Your task to perform on an android device: open the mobile data screen to see how much data has been used Image 0: 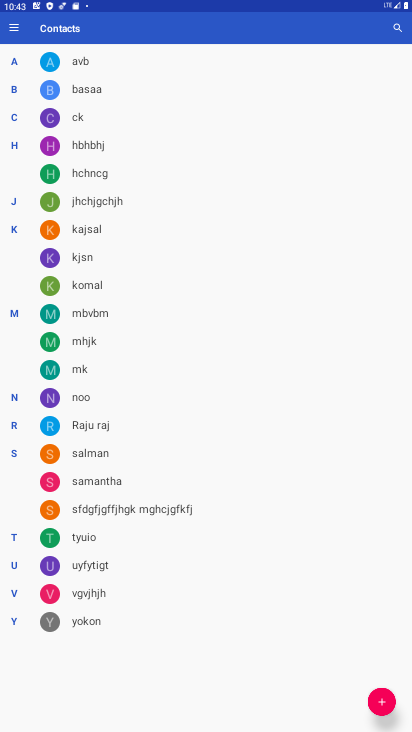
Step 0: press home button
Your task to perform on an android device: open the mobile data screen to see how much data has been used Image 1: 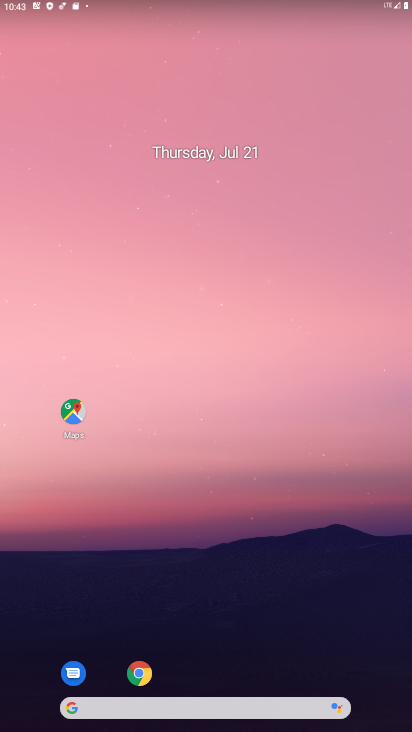
Step 1: drag from (226, 647) to (249, 188)
Your task to perform on an android device: open the mobile data screen to see how much data has been used Image 2: 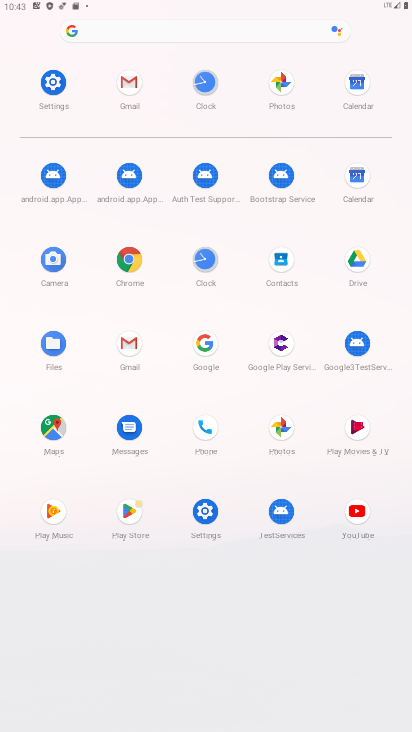
Step 2: click (67, 76)
Your task to perform on an android device: open the mobile data screen to see how much data has been used Image 3: 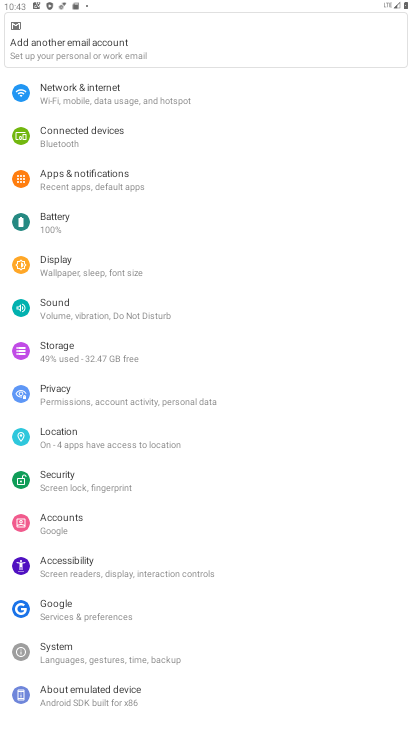
Step 3: click (156, 93)
Your task to perform on an android device: open the mobile data screen to see how much data has been used Image 4: 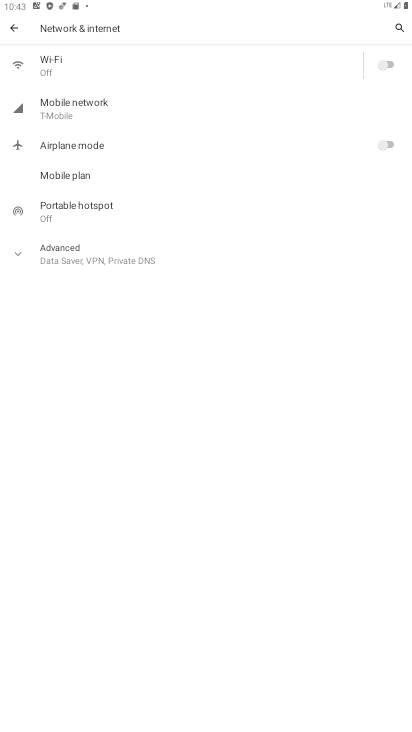
Step 4: click (78, 115)
Your task to perform on an android device: open the mobile data screen to see how much data has been used Image 5: 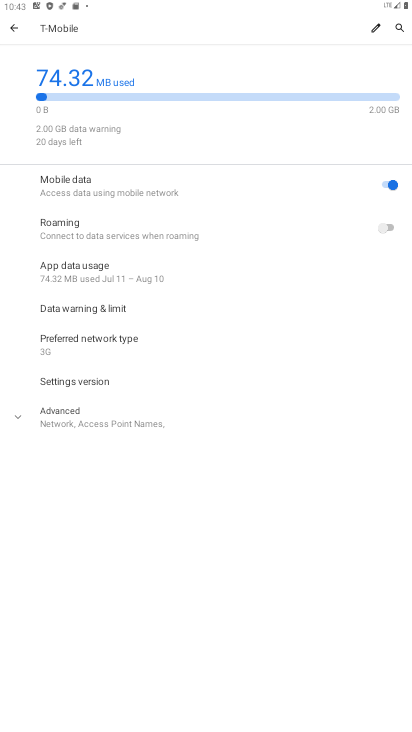
Step 5: click (148, 281)
Your task to perform on an android device: open the mobile data screen to see how much data has been used Image 6: 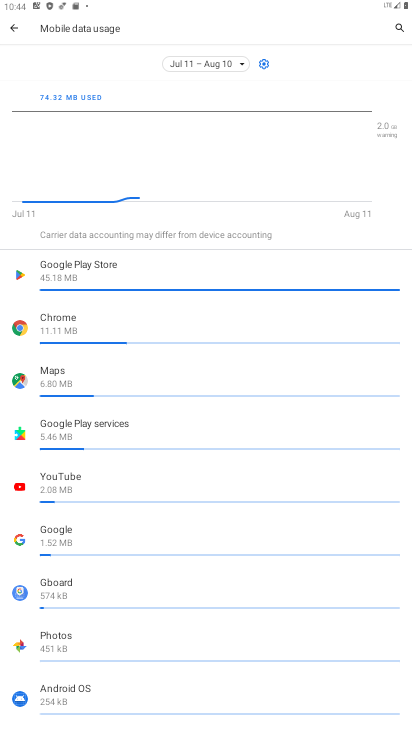
Step 6: task complete